Your task to perform on an android device: uninstall "Pandora - Music & Podcasts" Image 0: 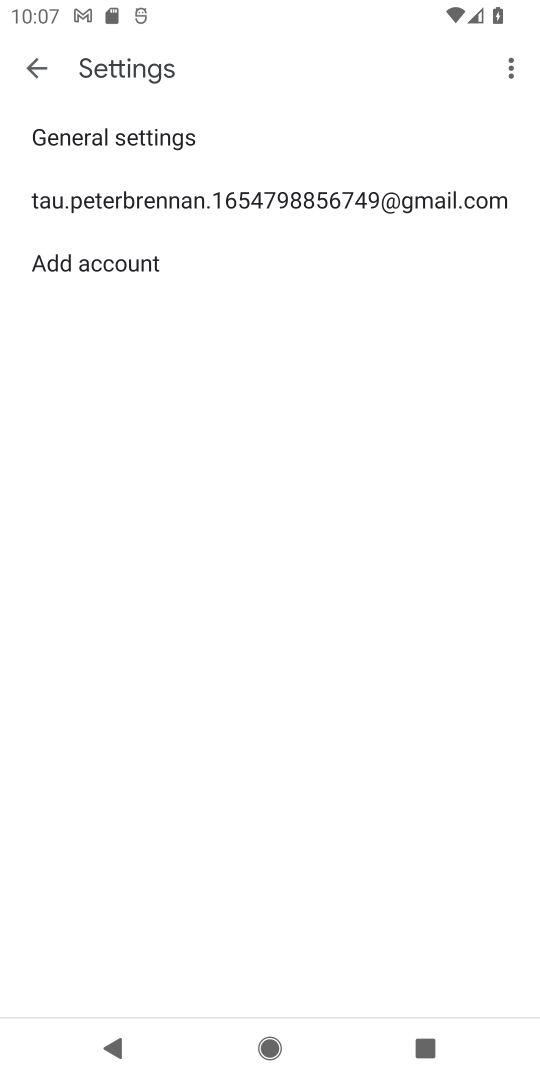
Step 0: press home button
Your task to perform on an android device: uninstall "Pandora - Music & Podcasts" Image 1: 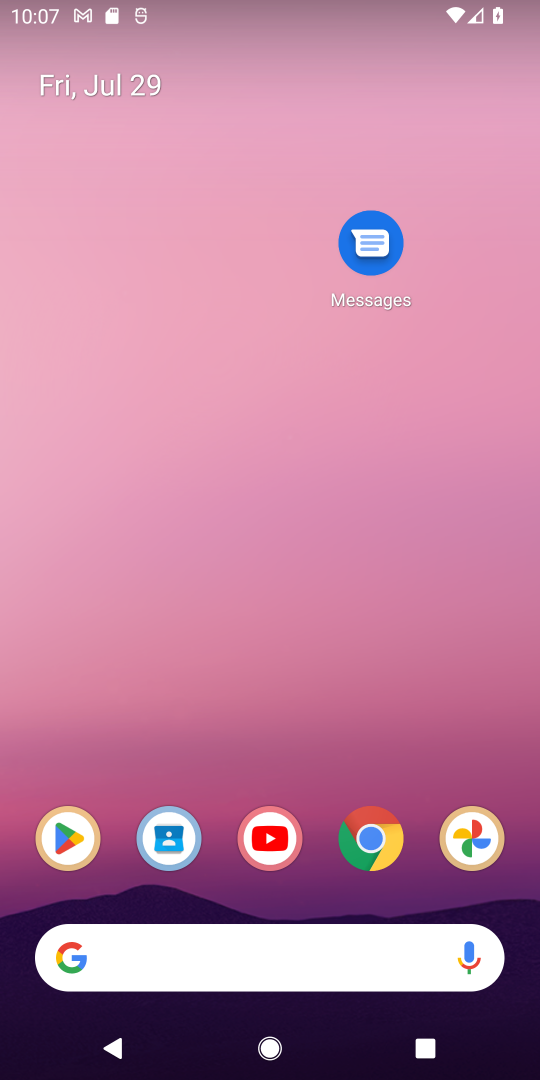
Step 1: click (65, 819)
Your task to perform on an android device: uninstall "Pandora - Music & Podcasts" Image 2: 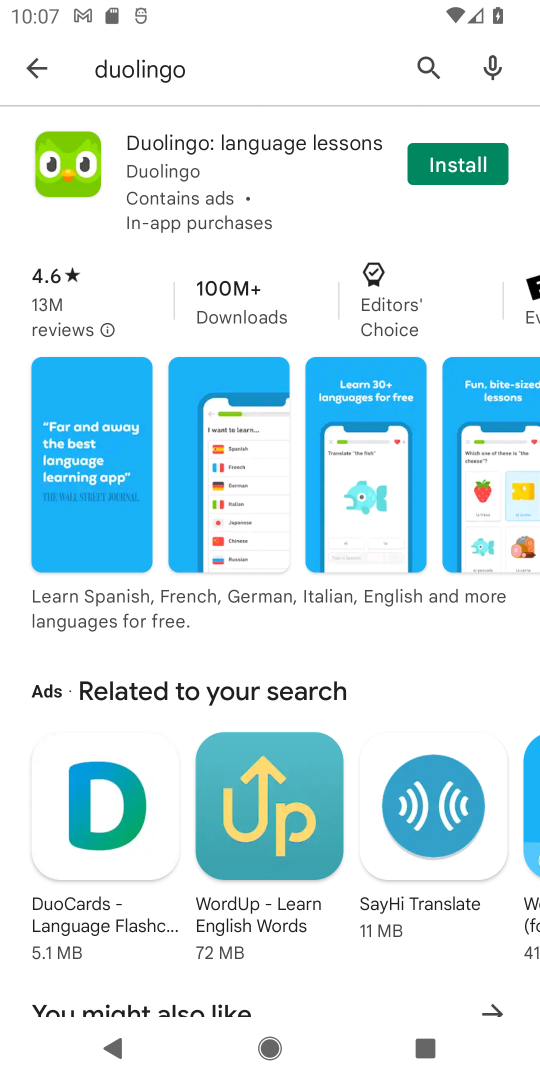
Step 2: click (195, 71)
Your task to perform on an android device: uninstall "Pandora - Music & Podcasts" Image 3: 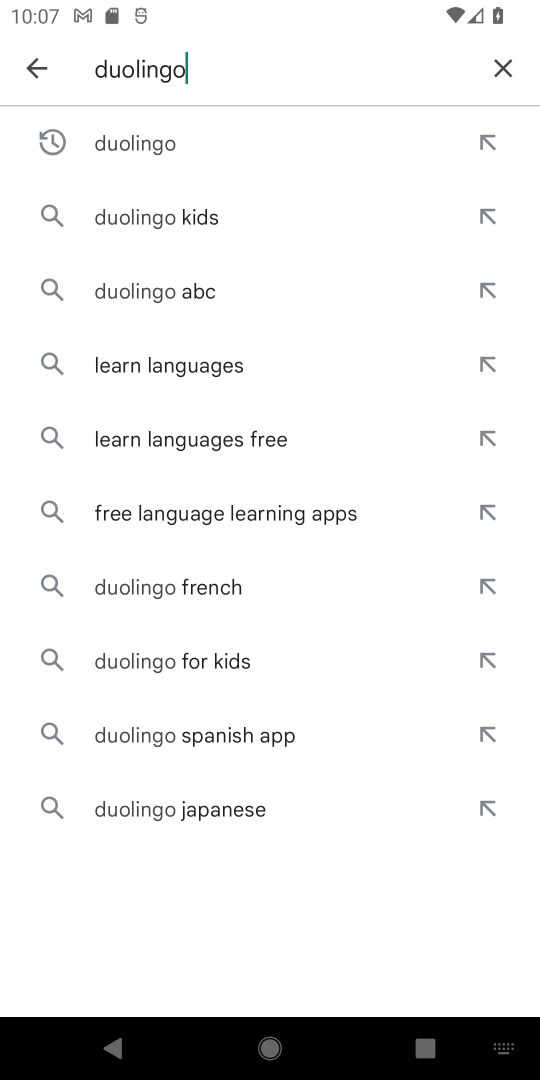
Step 3: click (512, 68)
Your task to perform on an android device: uninstall "Pandora - Music & Podcasts" Image 4: 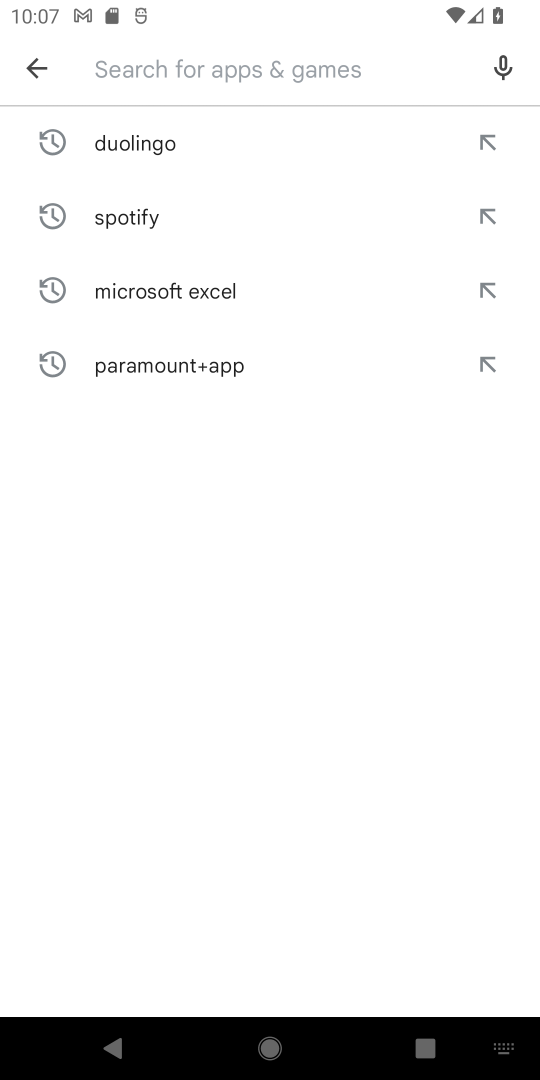
Step 4: type "Pandora"
Your task to perform on an android device: uninstall "Pandora - Music & Podcasts" Image 5: 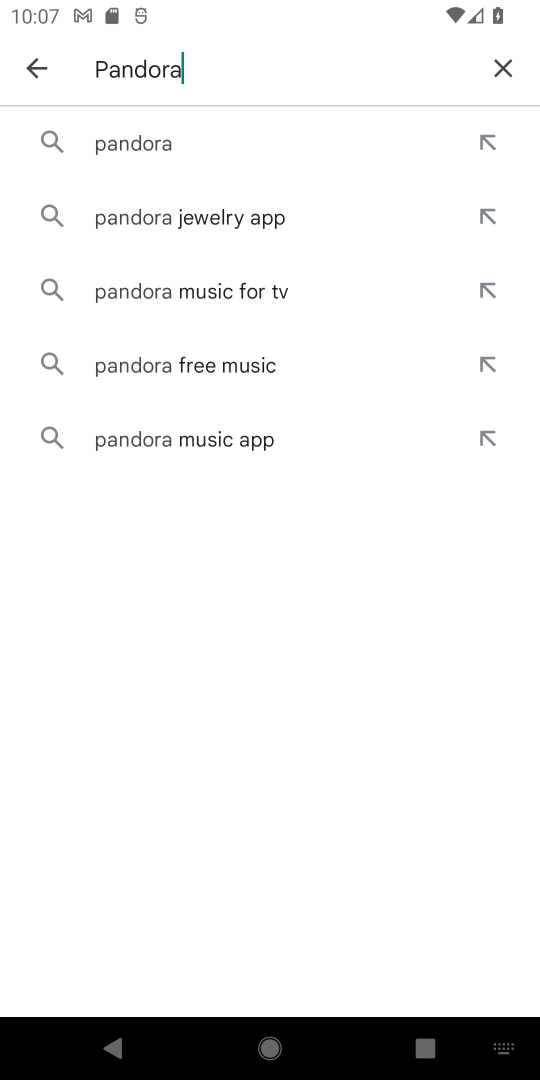
Step 5: click (106, 158)
Your task to perform on an android device: uninstall "Pandora - Music & Podcasts" Image 6: 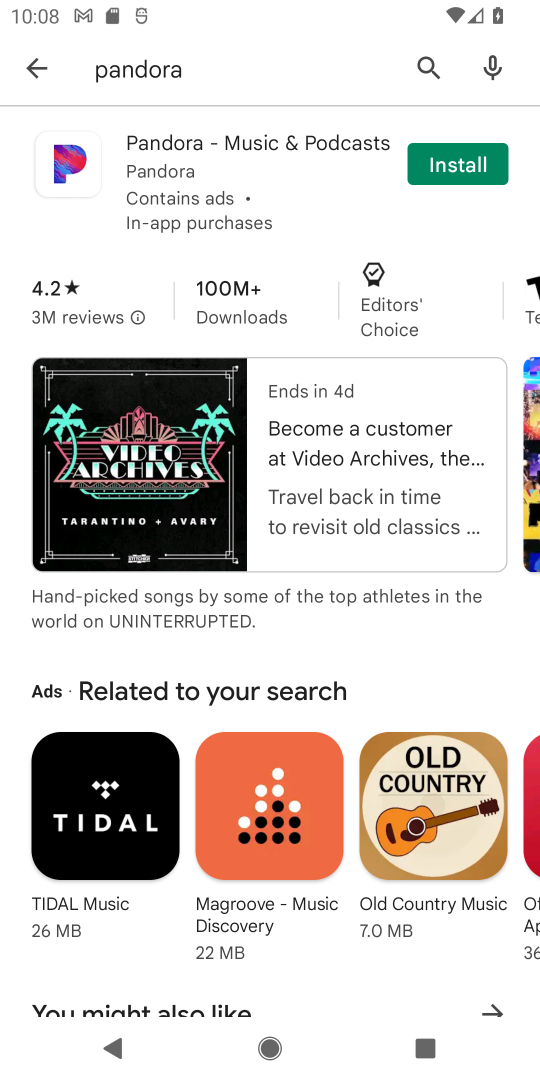
Step 6: task complete